Your task to perform on an android device: remove spam from my inbox in the gmail app Image 0: 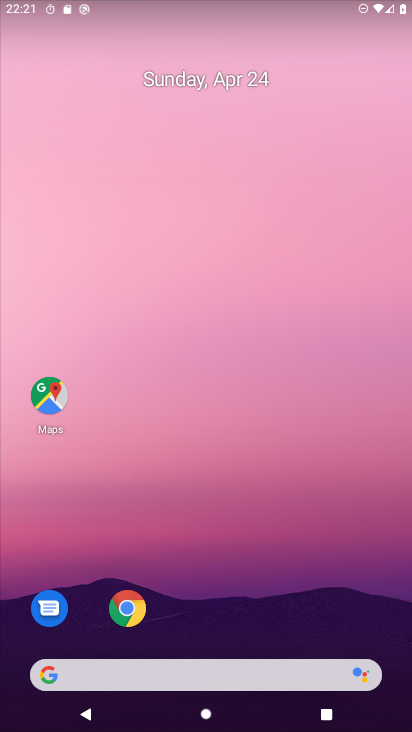
Step 0: drag from (244, 548) to (247, 134)
Your task to perform on an android device: remove spam from my inbox in the gmail app Image 1: 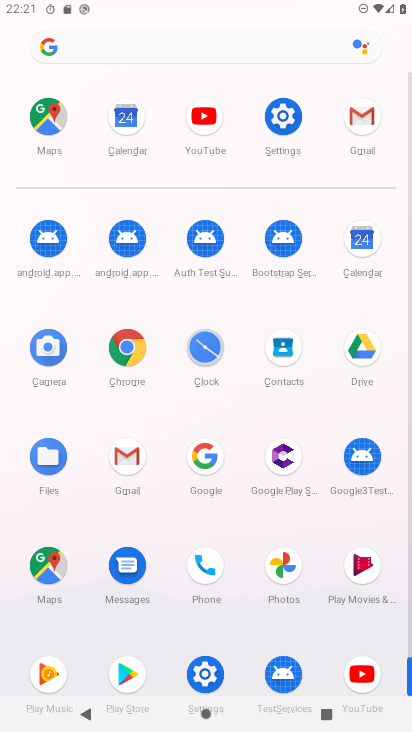
Step 1: click (365, 116)
Your task to perform on an android device: remove spam from my inbox in the gmail app Image 2: 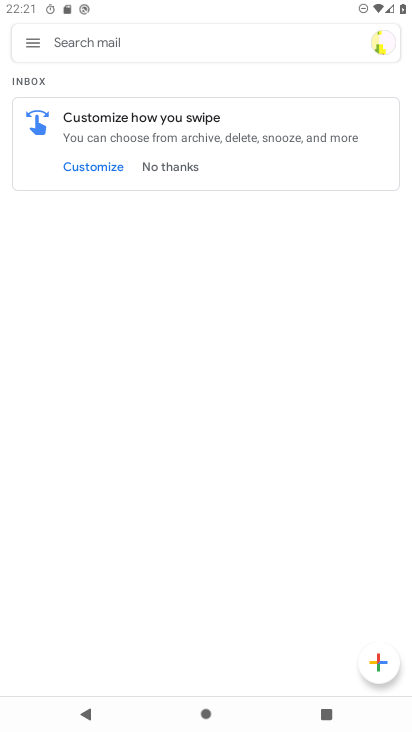
Step 2: click (34, 36)
Your task to perform on an android device: remove spam from my inbox in the gmail app Image 3: 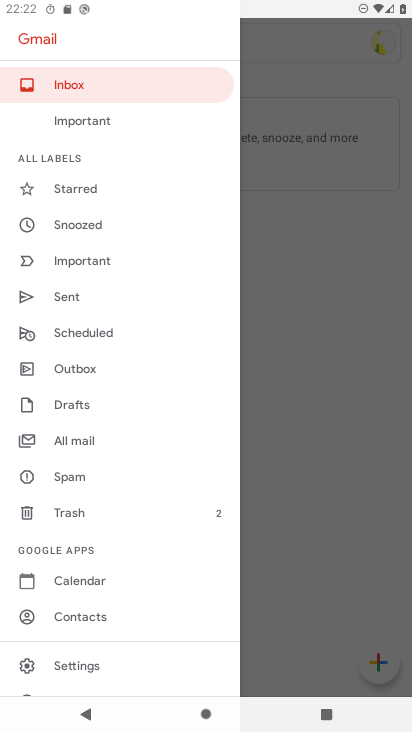
Step 3: click (129, 473)
Your task to perform on an android device: remove spam from my inbox in the gmail app Image 4: 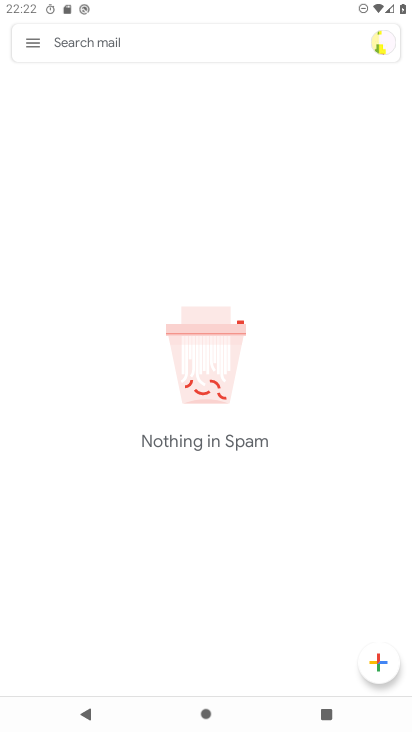
Step 4: task complete